Your task to perform on an android device: Clear all items from cart on ebay.com. Add lenovo thinkpad to the cart on ebay.com Image 0: 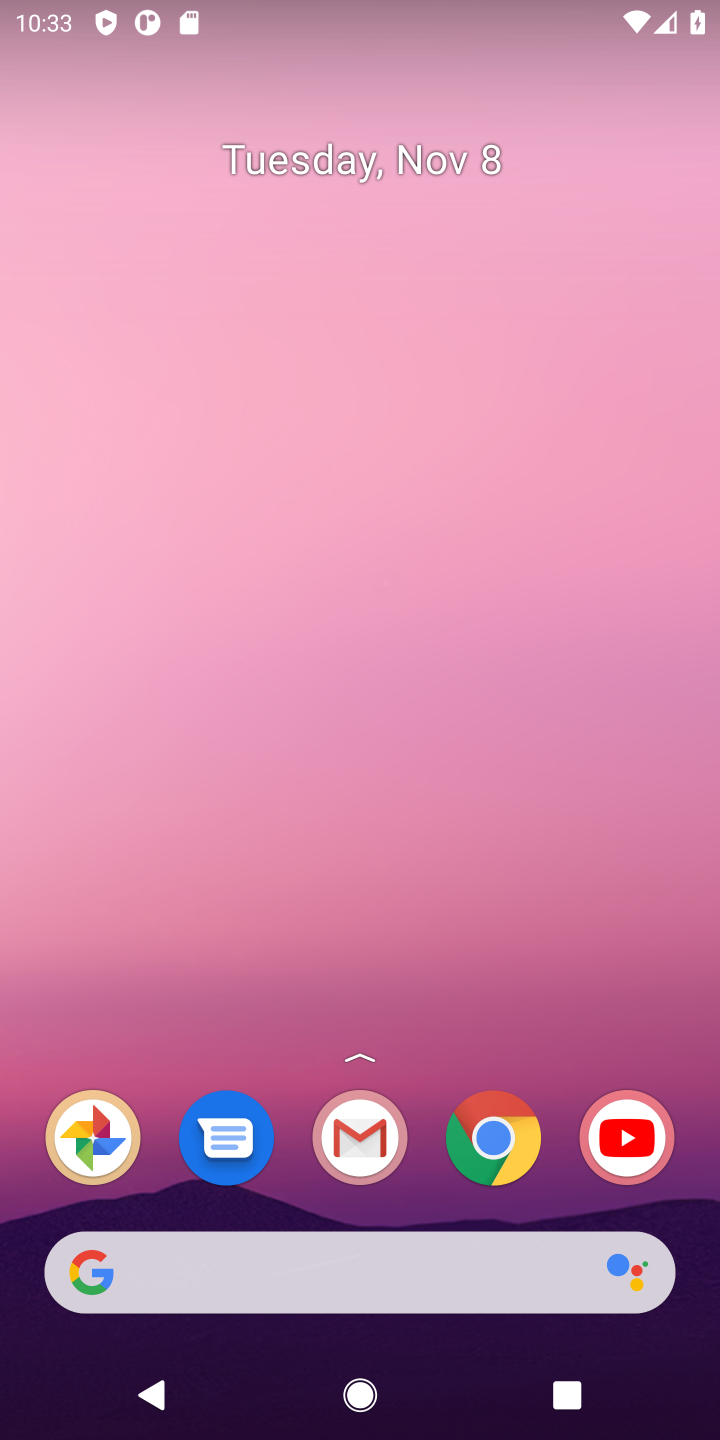
Step 0: press home button
Your task to perform on an android device: Clear all items from cart on ebay.com. Add lenovo thinkpad to the cart on ebay.com Image 1: 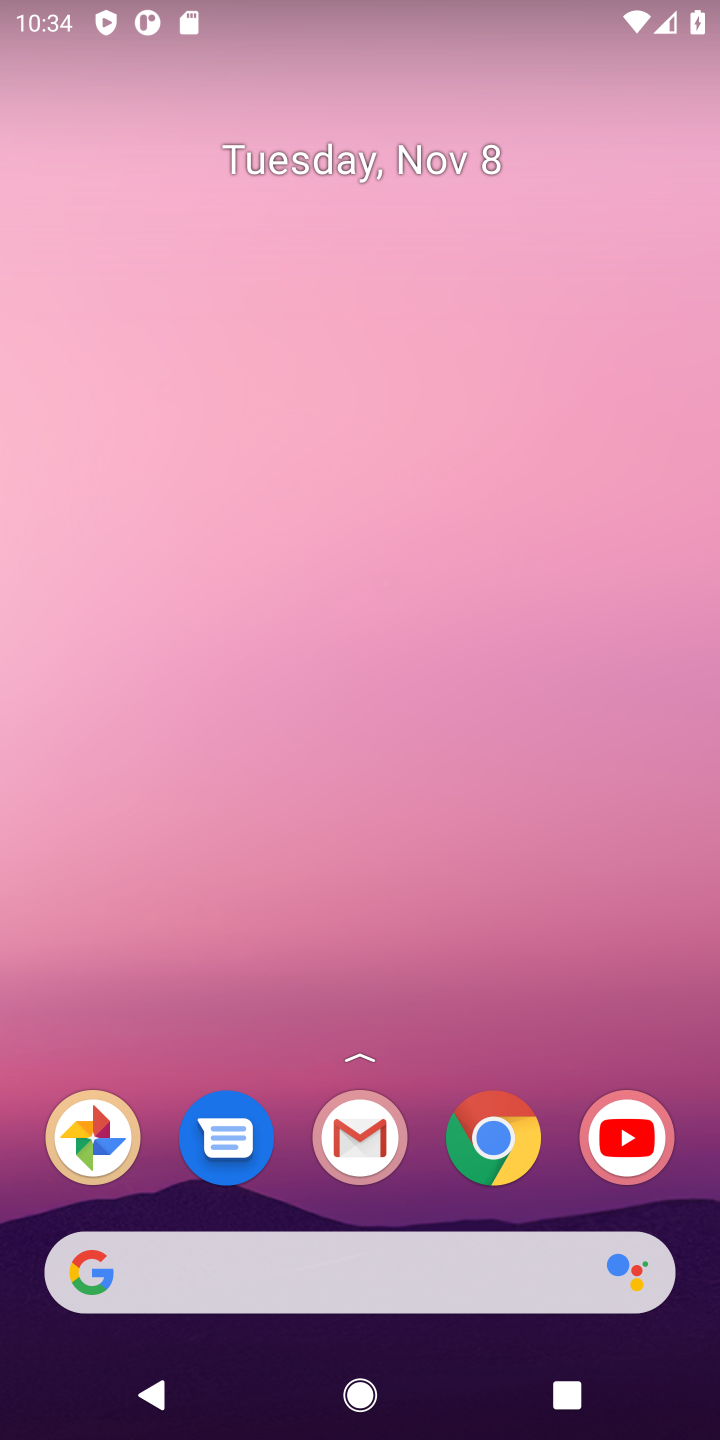
Step 1: click (477, 1148)
Your task to perform on an android device: Clear all items from cart on ebay.com. Add lenovo thinkpad to the cart on ebay.com Image 2: 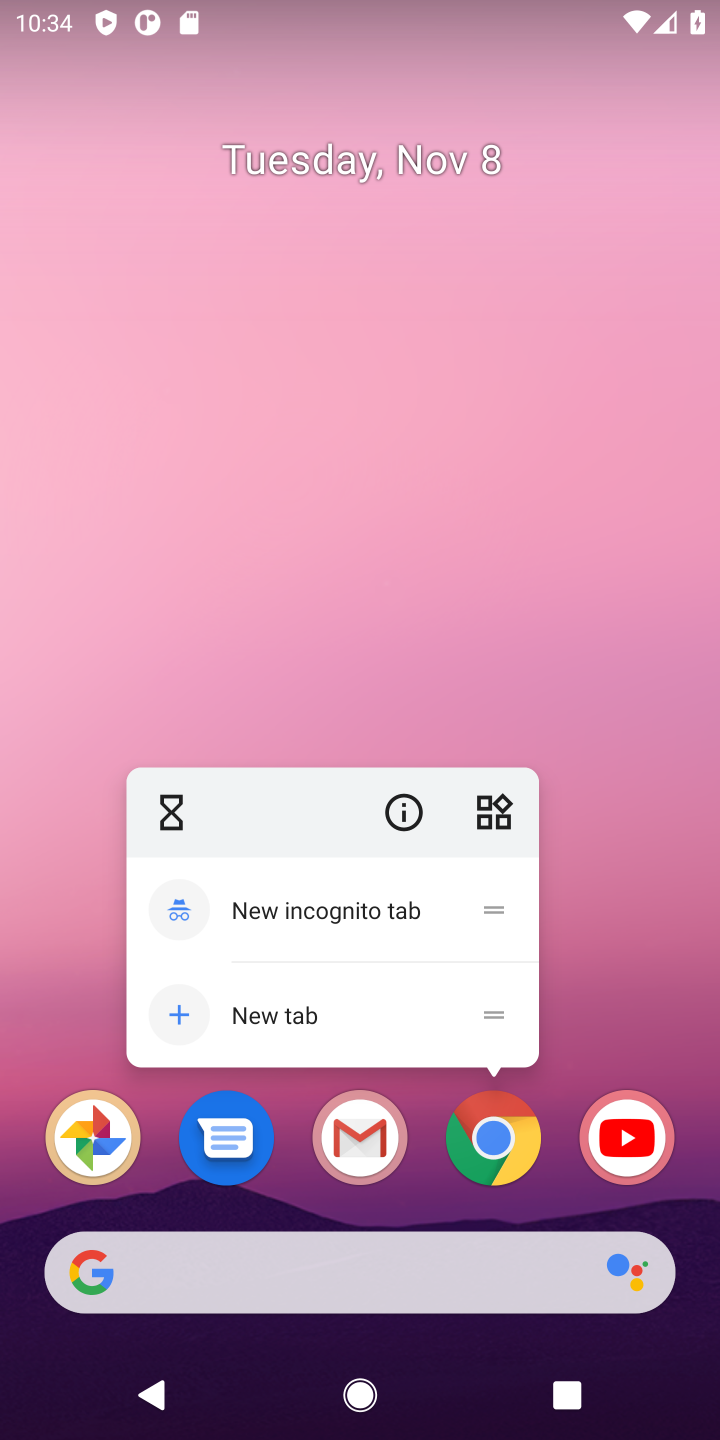
Step 2: click (500, 1146)
Your task to perform on an android device: Clear all items from cart on ebay.com. Add lenovo thinkpad to the cart on ebay.com Image 3: 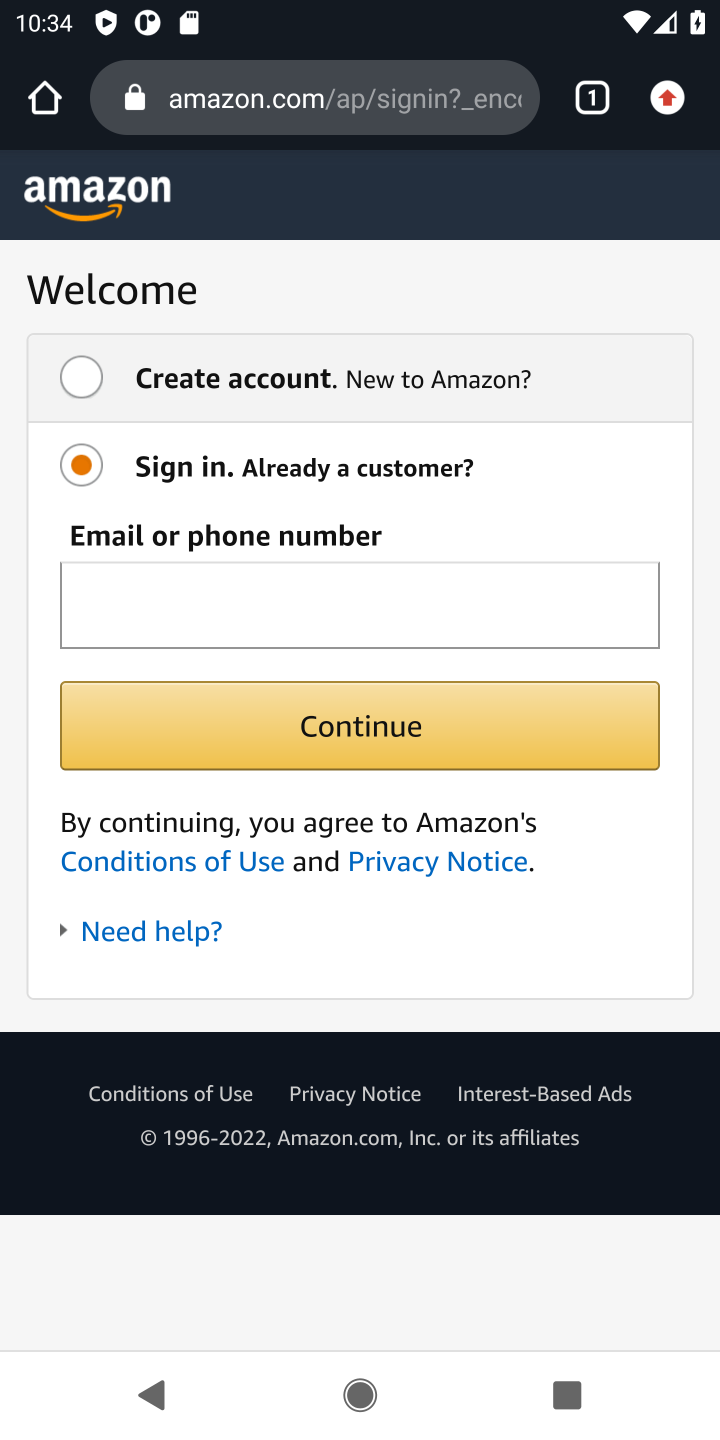
Step 3: click (359, 121)
Your task to perform on an android device: Clear all items from cart on ebay.com. Add lenovo thinkpad to the cart on ebay.com Image 4: 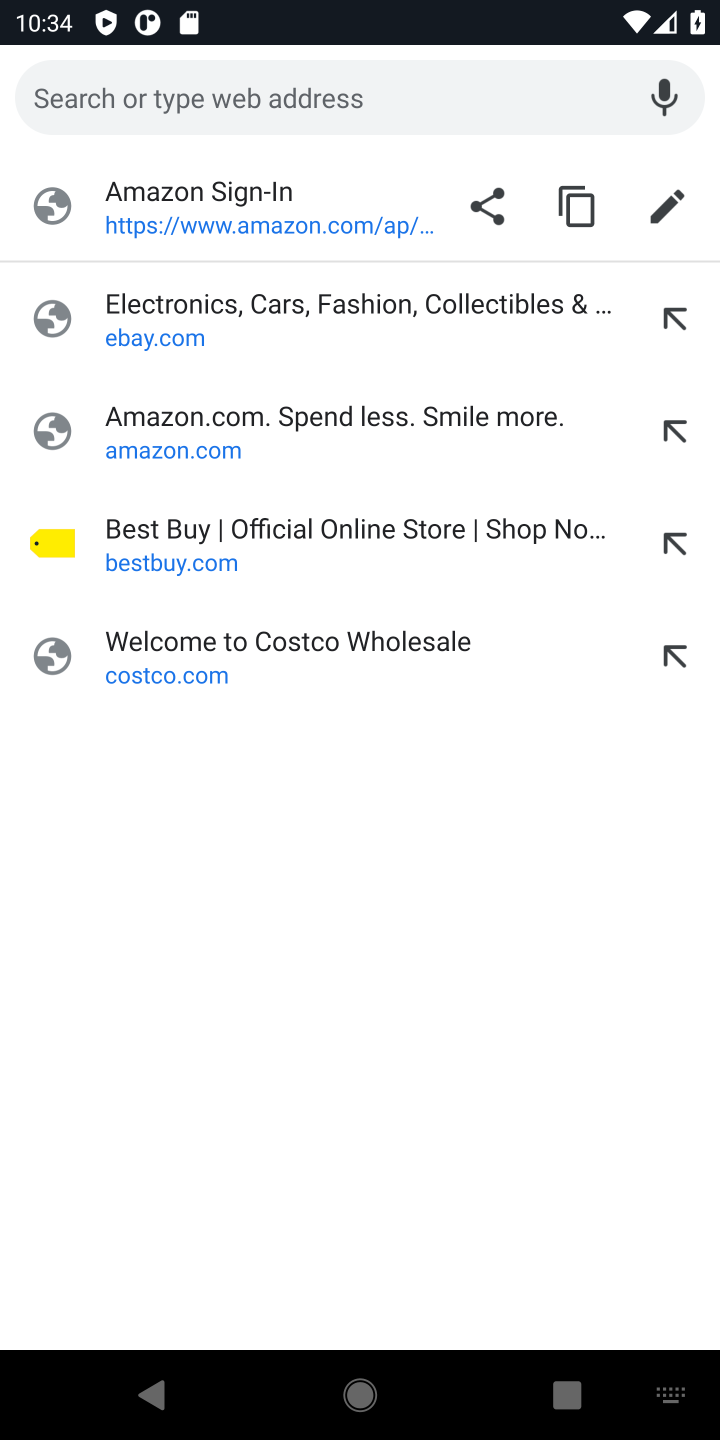
Step 4: click (164, 332)
Your task to perform on an android device: Clear all items from cart on ebay.com. Add lenovo thinkpad to the cart on ebay.com Image 5: 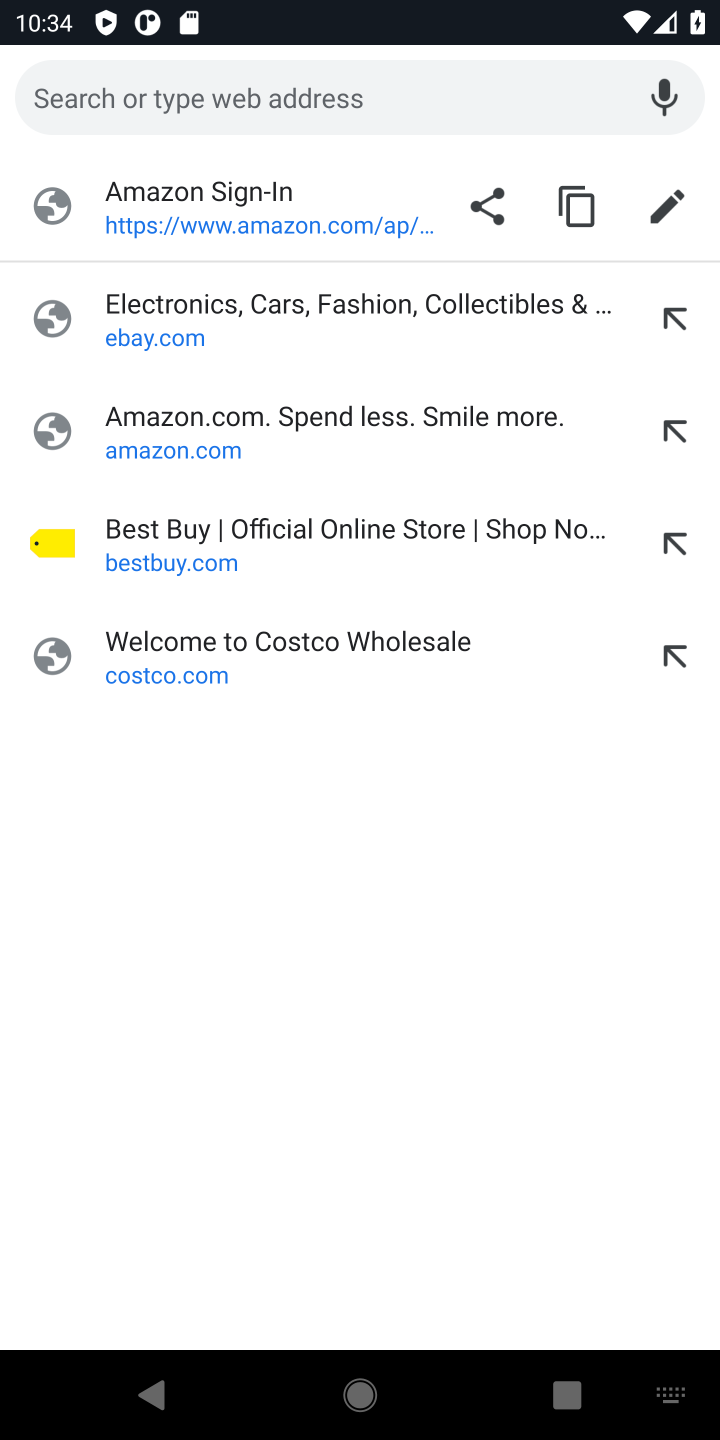
Step 5: click (136, 334)
Your task to perform on an android device: Clear all items from cart on ebay.com. Add lenovo thinkpad to the cart on ebay.com Image 6: 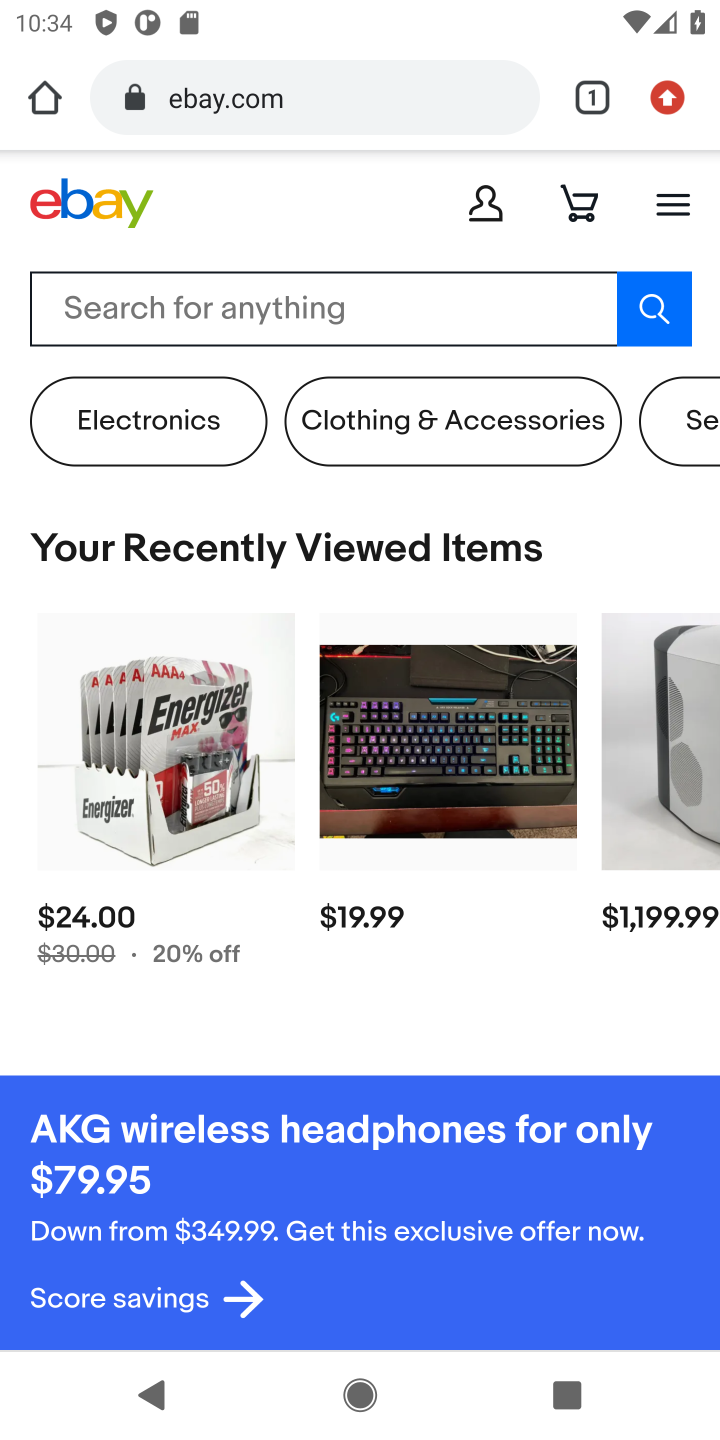
Step 6: click (167, 307)
Your task to perform on an android device: Clear all items from cart on ebay.com. Add lenovo thinkpad to the cart on ebay.com Image 7: 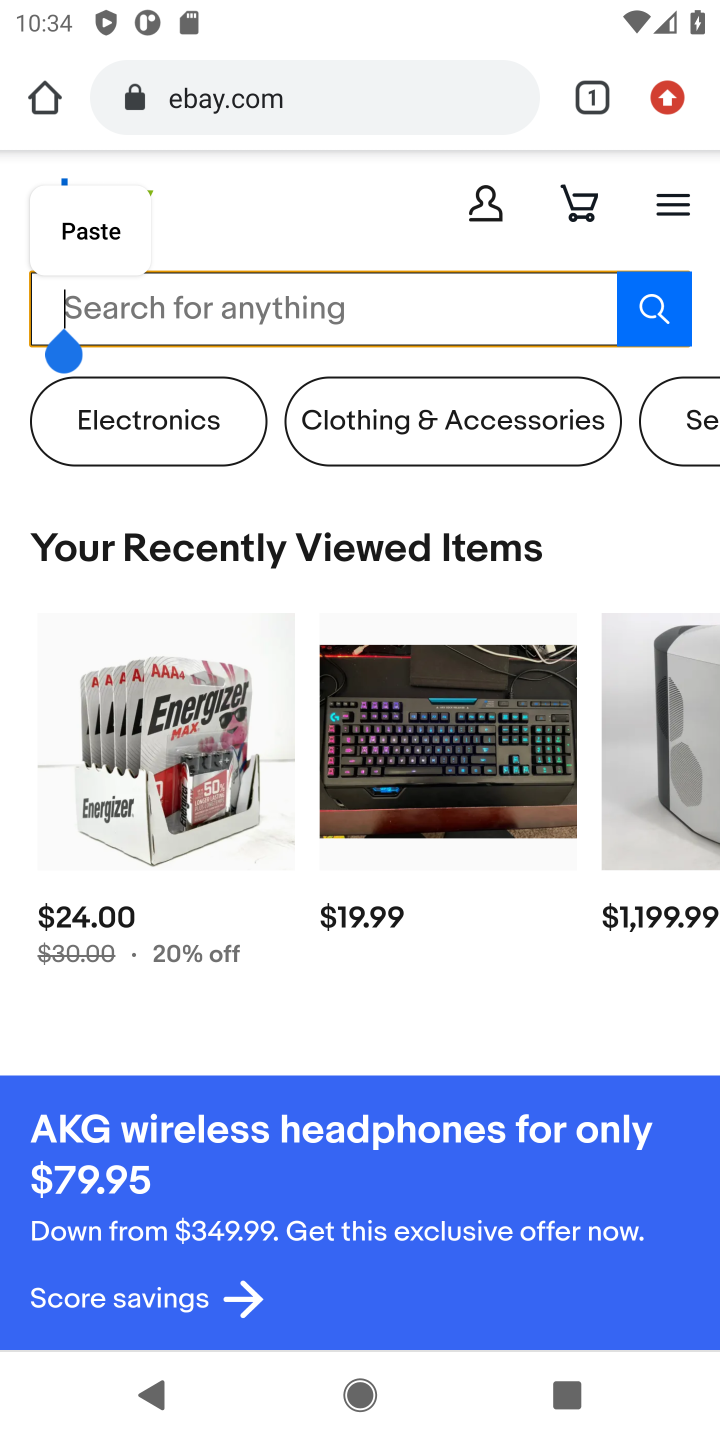
Step 7: type "lenovo thinkpad "
Your task to perform on an android device: Clear all items from cart on ebay.com. Add lenovo thinkpad to the cart on ebay.com Image 8: 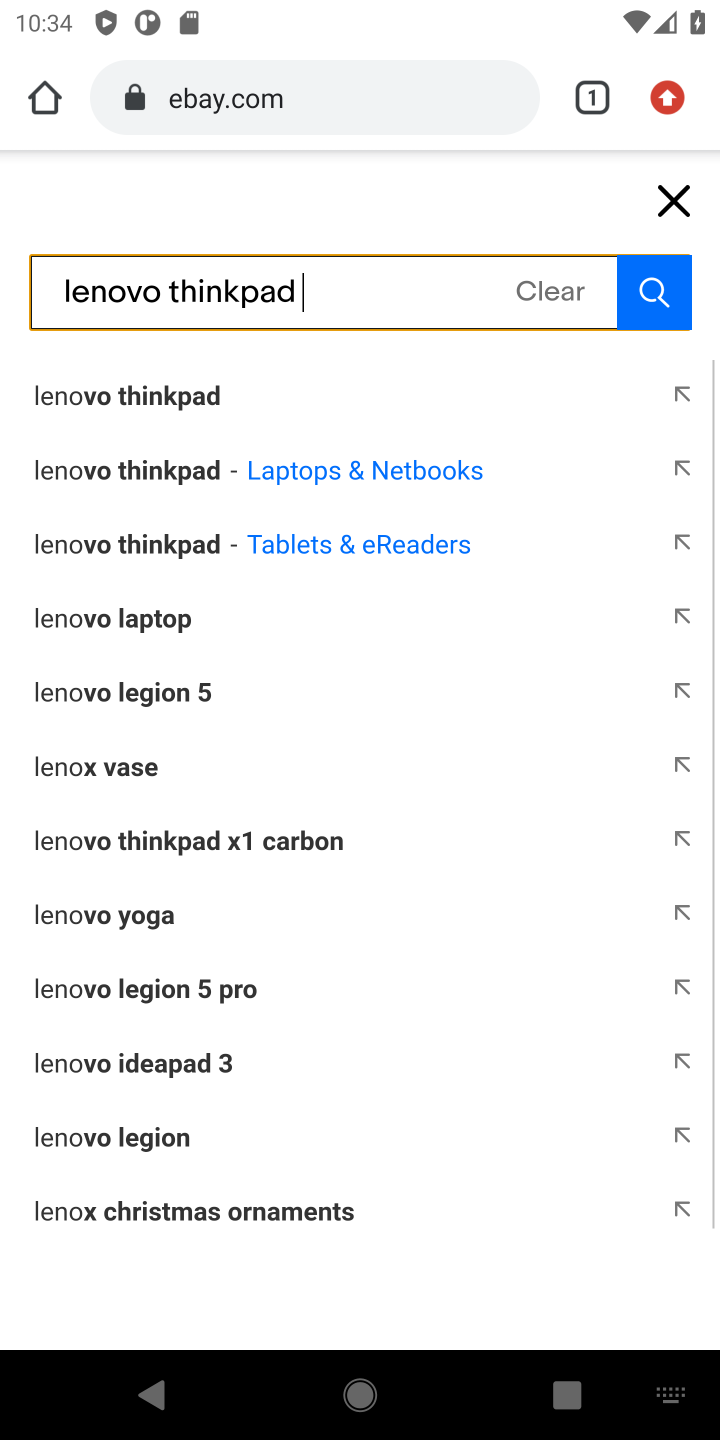
Step 8: press enter
Your task to perform on an android device: Clear all items from cart on ebay.com. Add lenovo thinkpad to the cart on ebay.com Image 9: 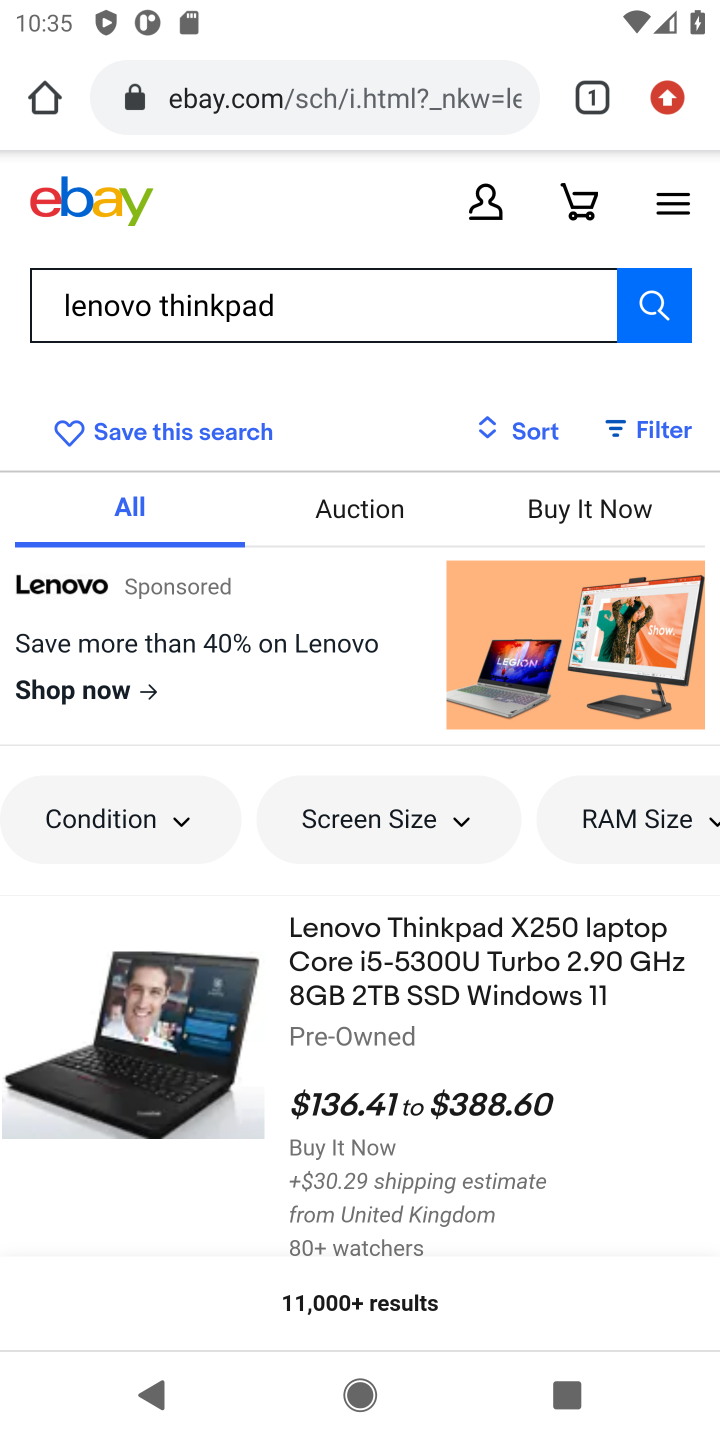
Step 9: click (508, 983)
Your task to perform on an android device: Clear all items from cart on ebay.com. Add lenovo thinkpad to the cart on ebay.com Image 10: 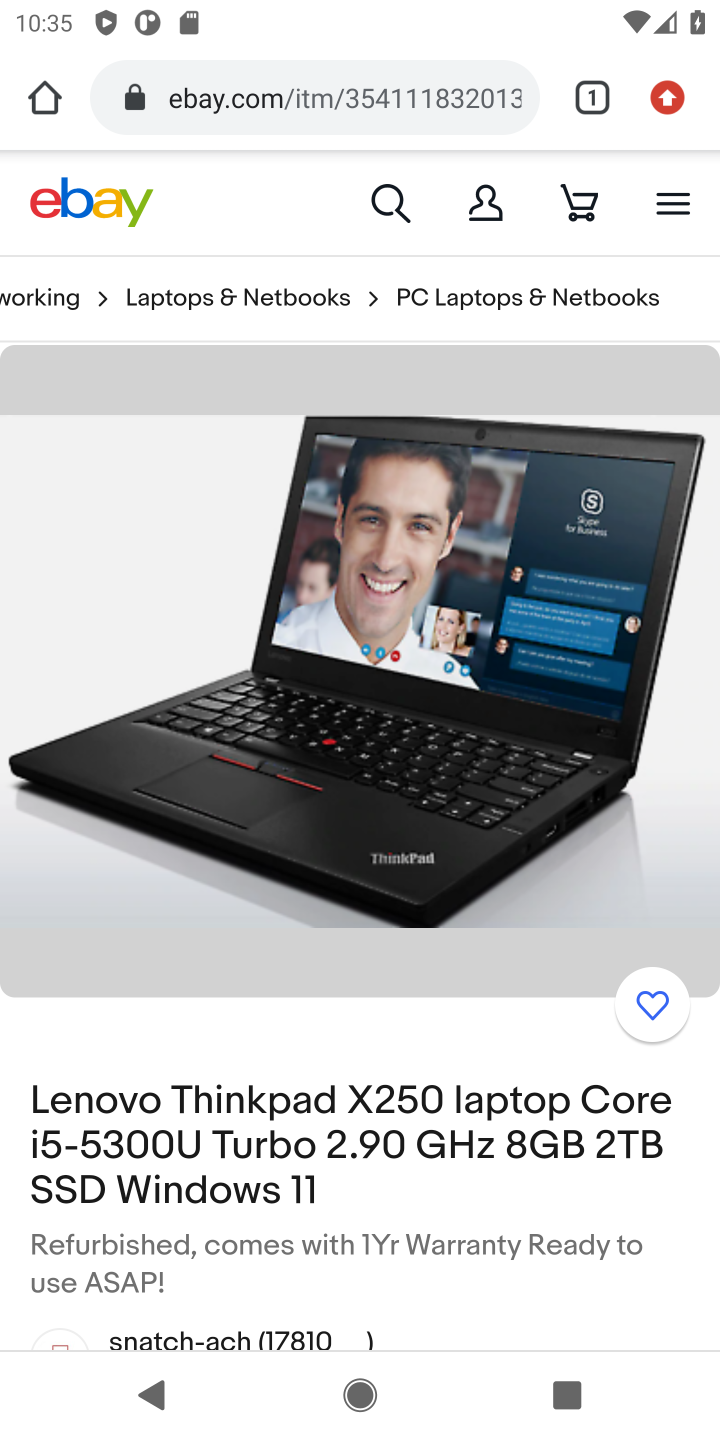
Step 10: drag from (396, 1275) to (693, 458)
Your task to perform on an android device: Clear all items from cart on ebay.com. Add lenovo thinkpad to the cart on ebay.com Image 11: 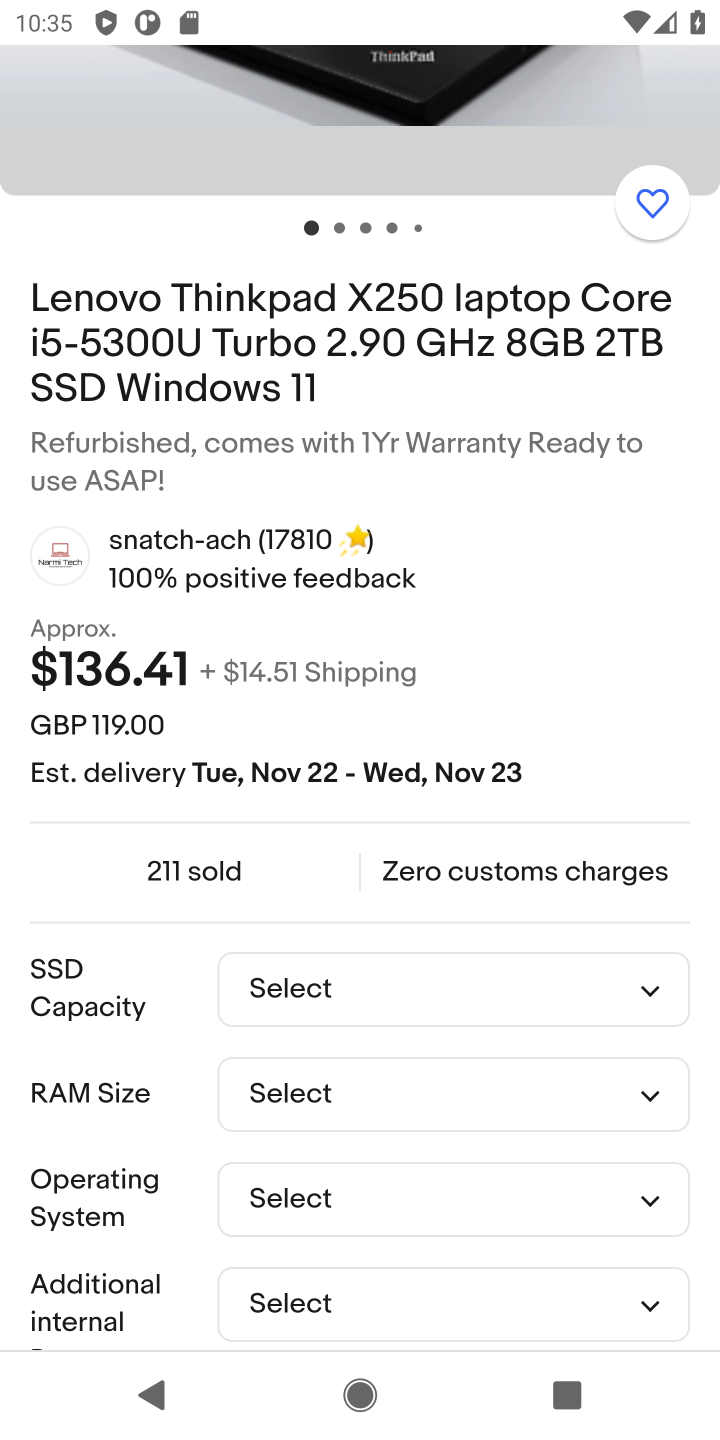
Step 11: drag from (265, 1054) to (601, 76)
Your task to perform on an android device: Clear all items from cart on ebay.com. Add lenovo thinkpad to the cart on ebay.com Image 12: 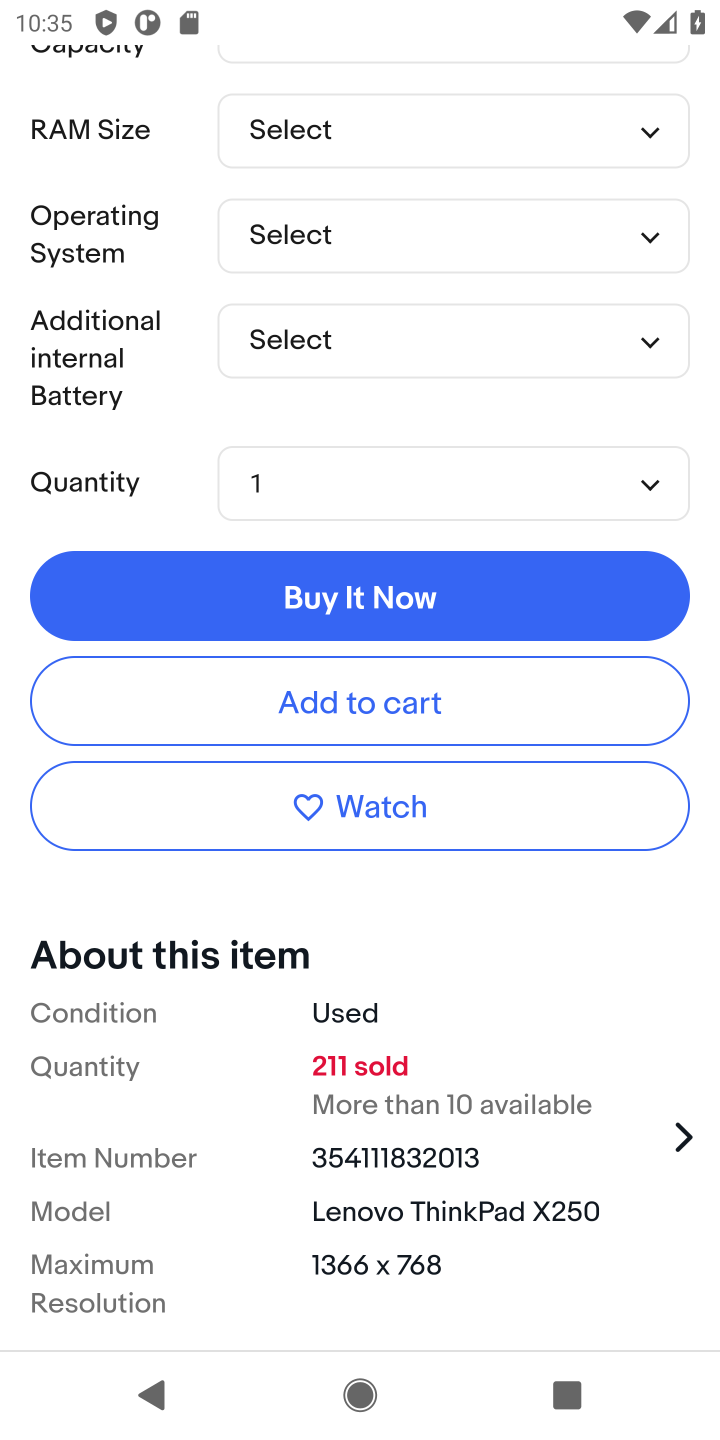
Step 12: click (392, 695)
Your task to perform on an android device: Clear all items from cart on ebay.com. Add lenovo thinkpad to the cart on ebay.com Image 13: 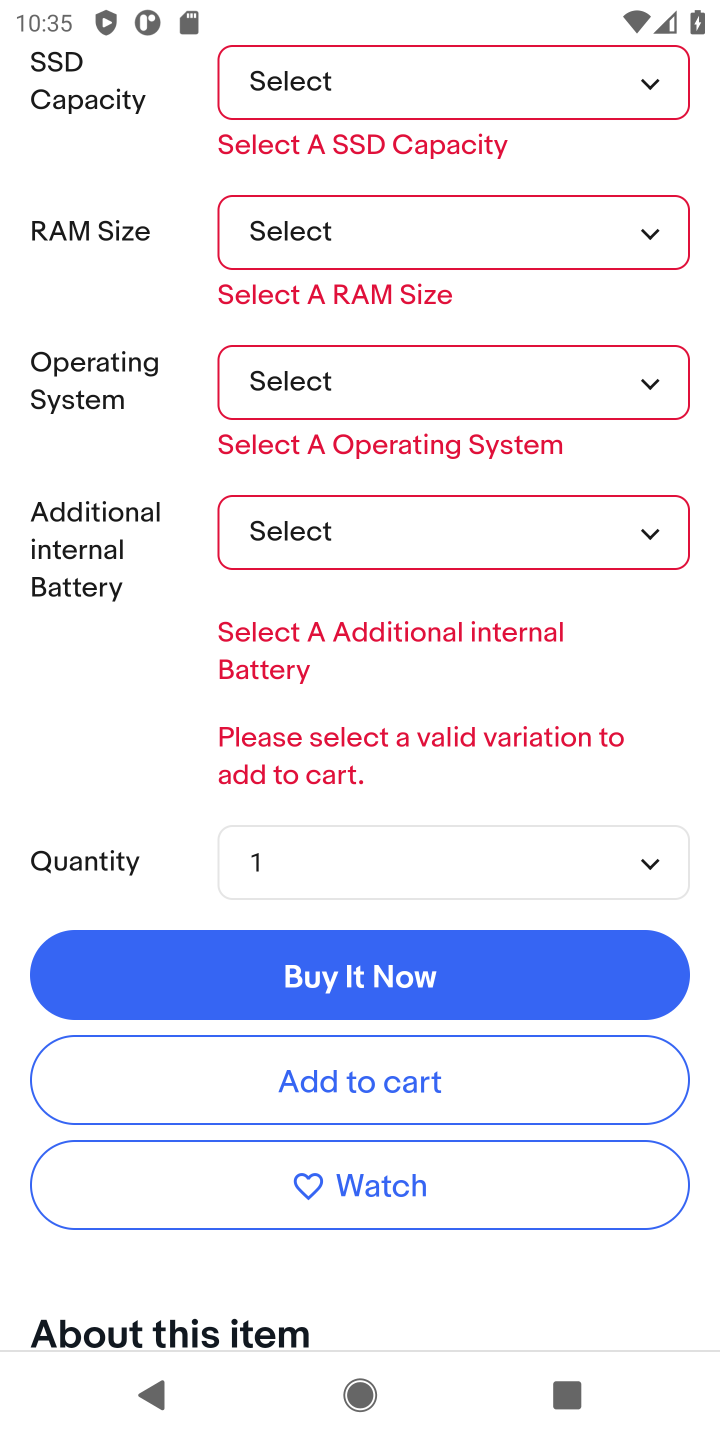
Step 13: click (638, 70)
Your task to perform on an android device: Clear all items from cart on ebay.com. Add lenovo thinkpad to the cart on ebay.com Image 14: 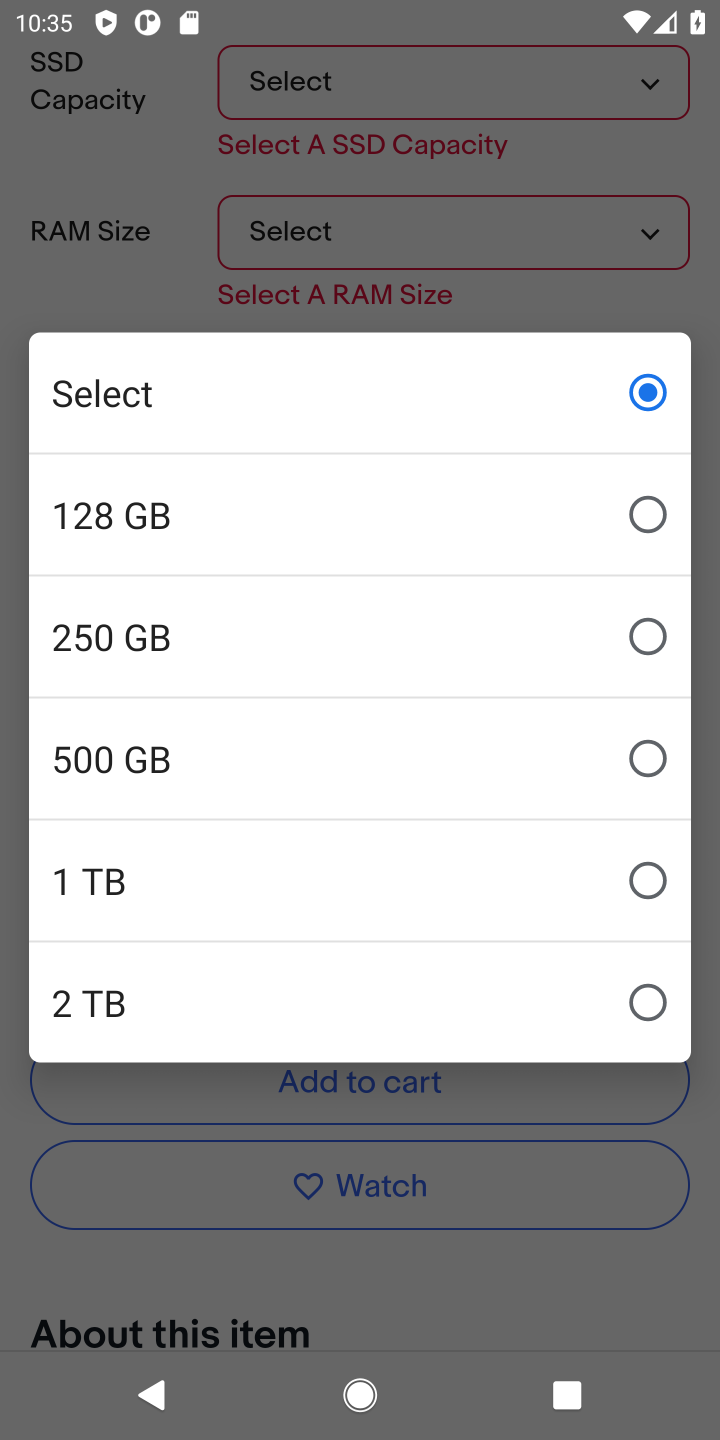
Step 14: click (654, 497)
Your task to perform on an android device: Clear all items from cart on ebay.com. Add lenovo thinkpad to the cart on ebay.com Image 15: 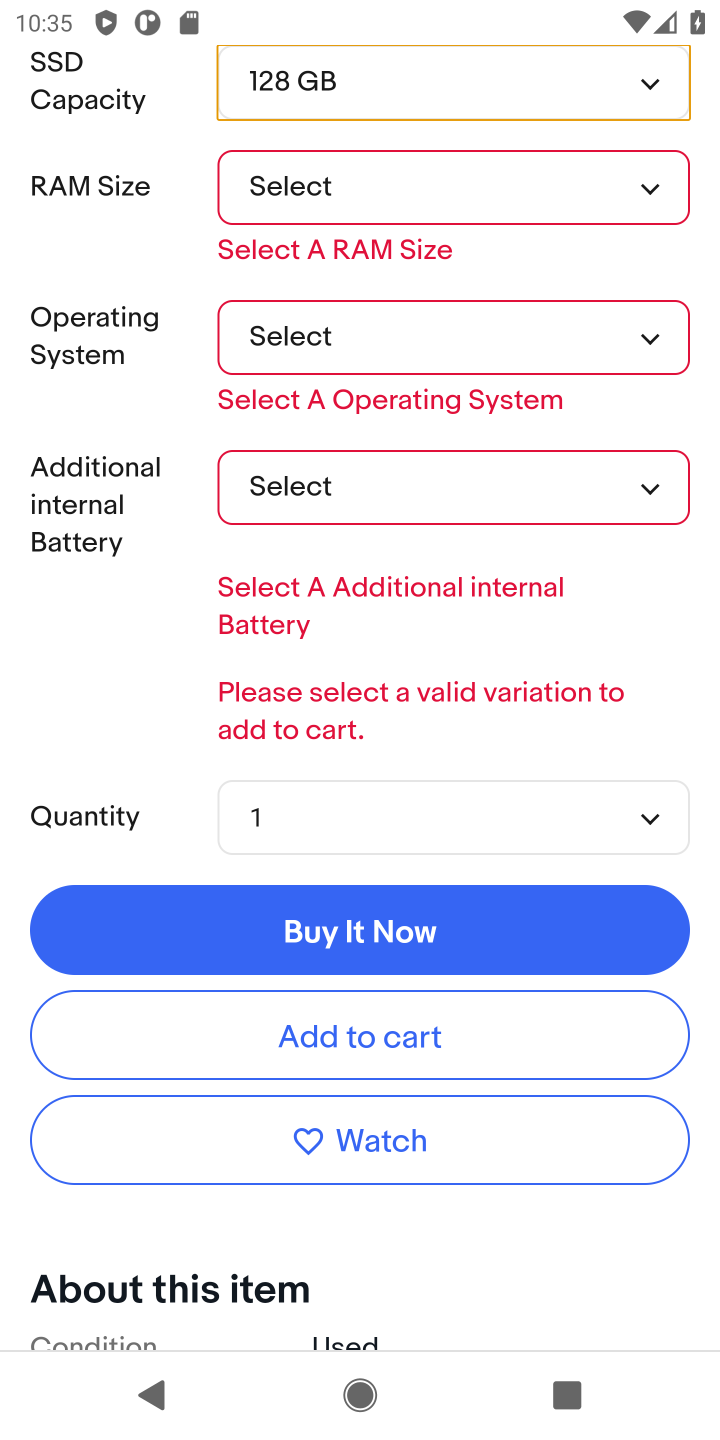
Step 15: click (656, 178)
Your task to perform on an android device: Clear all items from cart on ebay.com. Add lenovo thinkpad to the cart on ebay.com Image 16: 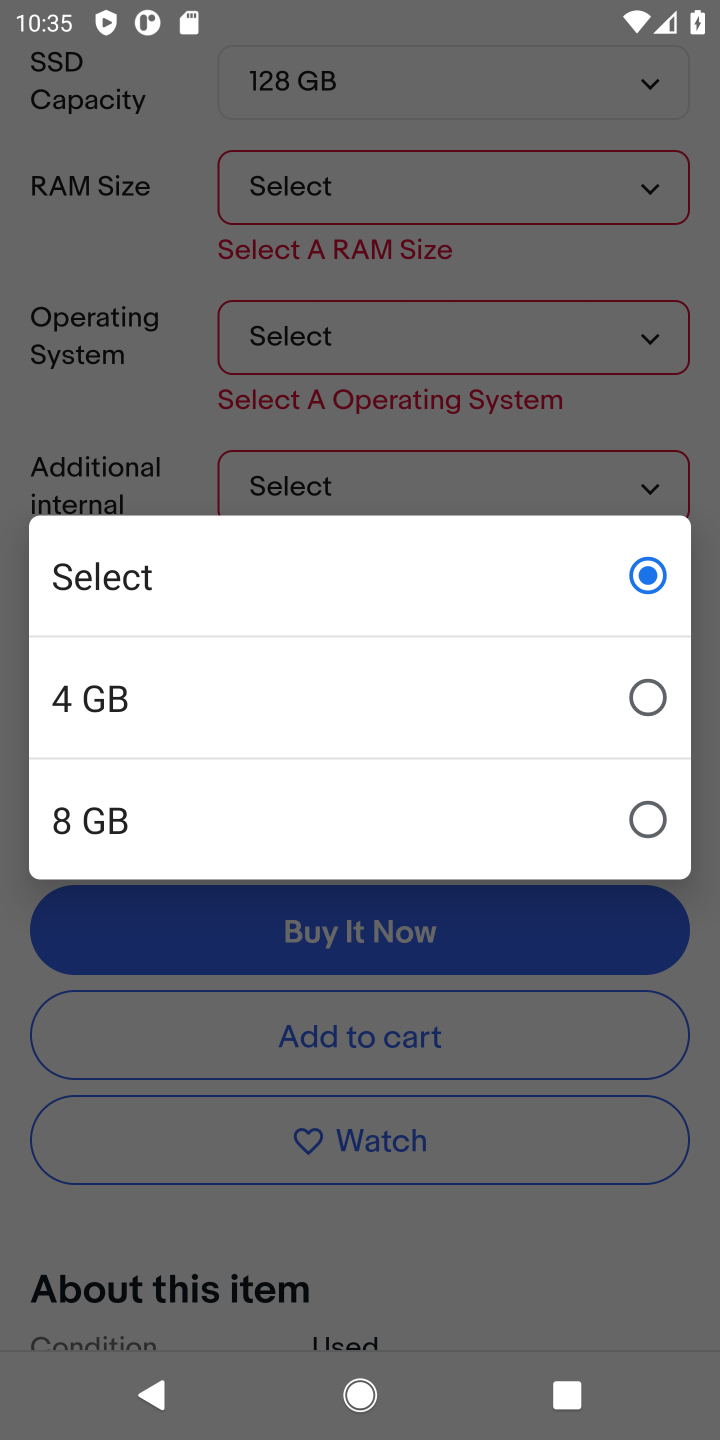
Step 16: click (638, 686)
Your task to perform on an android device: Clear all items from cart on ebay.com. Add lenovo thinkpad to the cart on ebay.com Image 17: 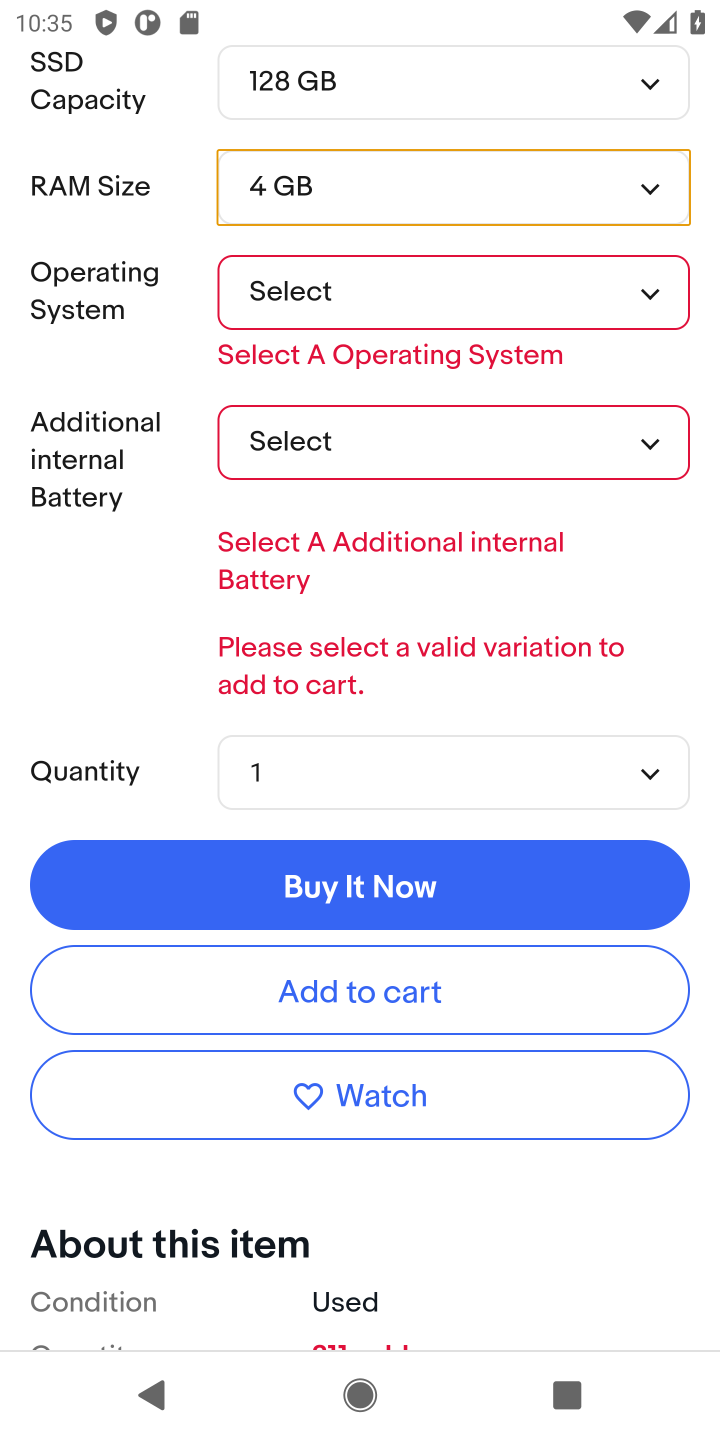
Step 17: click (659, 286)
Your task to perform on an android device: Clear all items from cart on ebay.com. Add lenovo thinkpad to the cart on ebay.com Image 18: 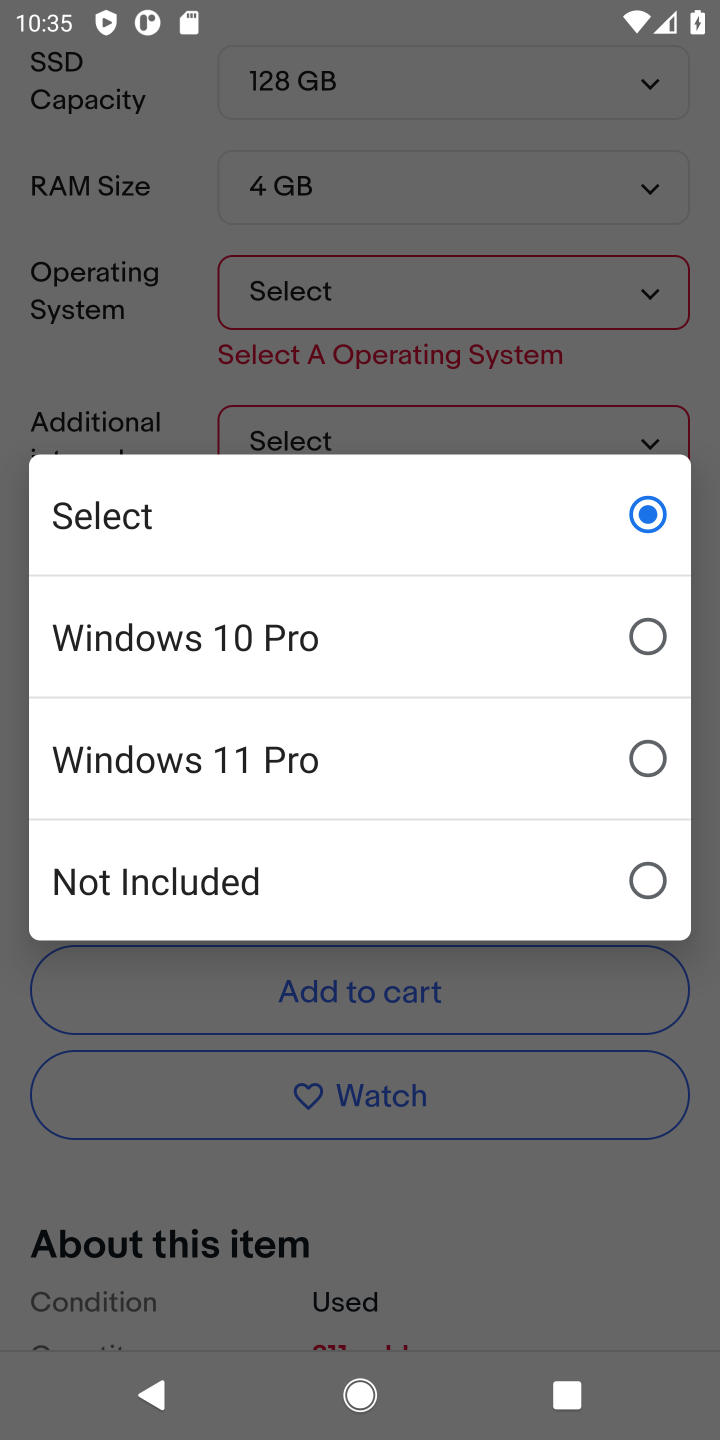
Step 18: click (643, 639)
Your task to perform on an android device: Clear all items from cart on ebay.com. Add lenovo thinkpad to the cart on ebay.com Image 19: 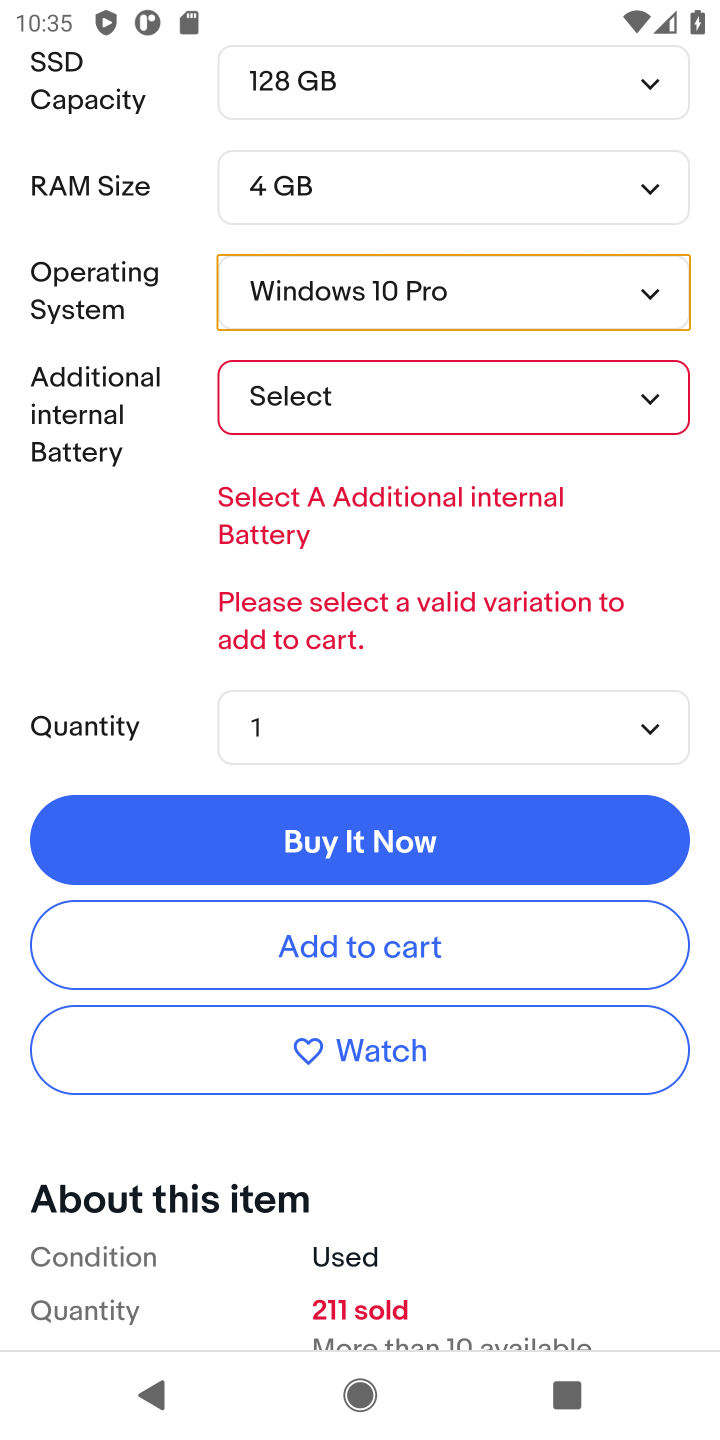
Step 19: click (651, 392)
Your task to perform on an android device: Clear all items from cart on ebay.com. Add lenovo thinkpad to the cart on ebay.com Image 20: 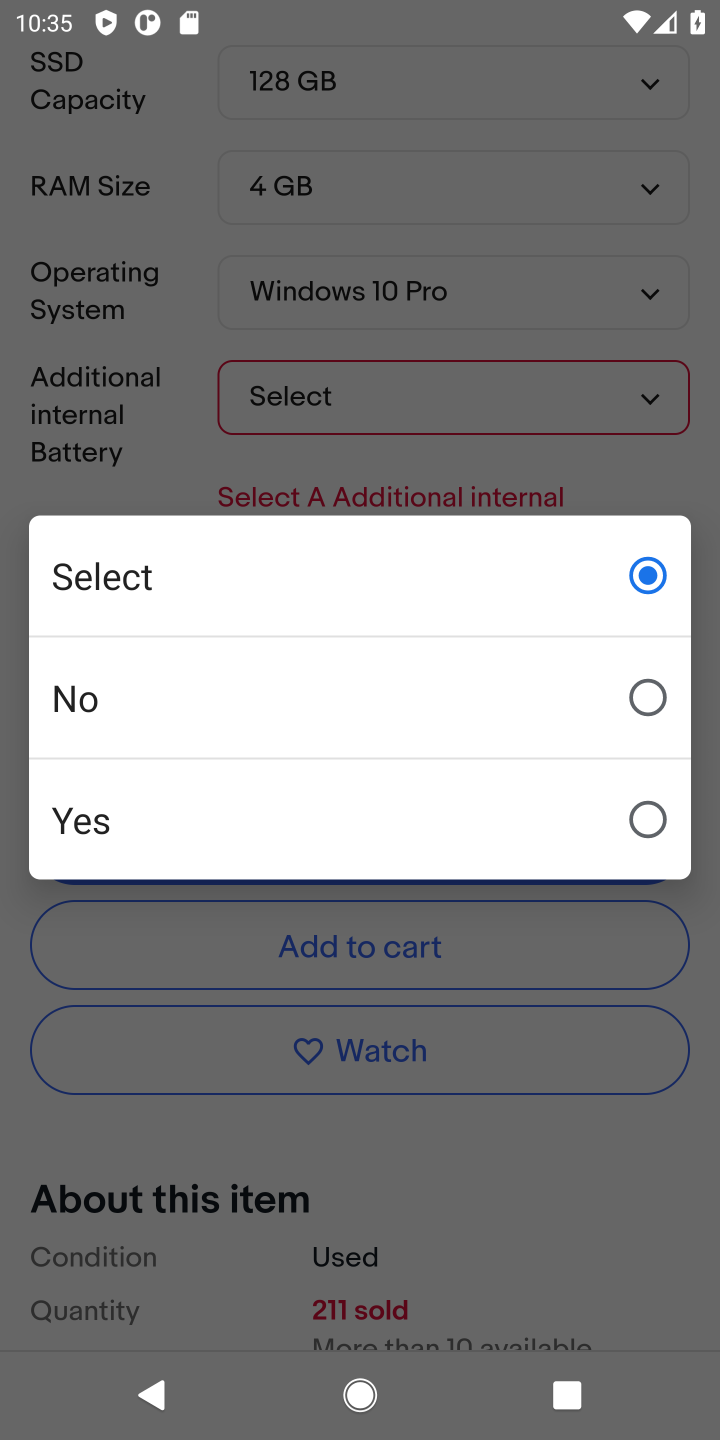
Step 20: click (648, 698)
Your task to perform on an android device: Clear all items from cart on ebay.com. Add lenovo thinkpad to the cart on ebay.com Image 21: 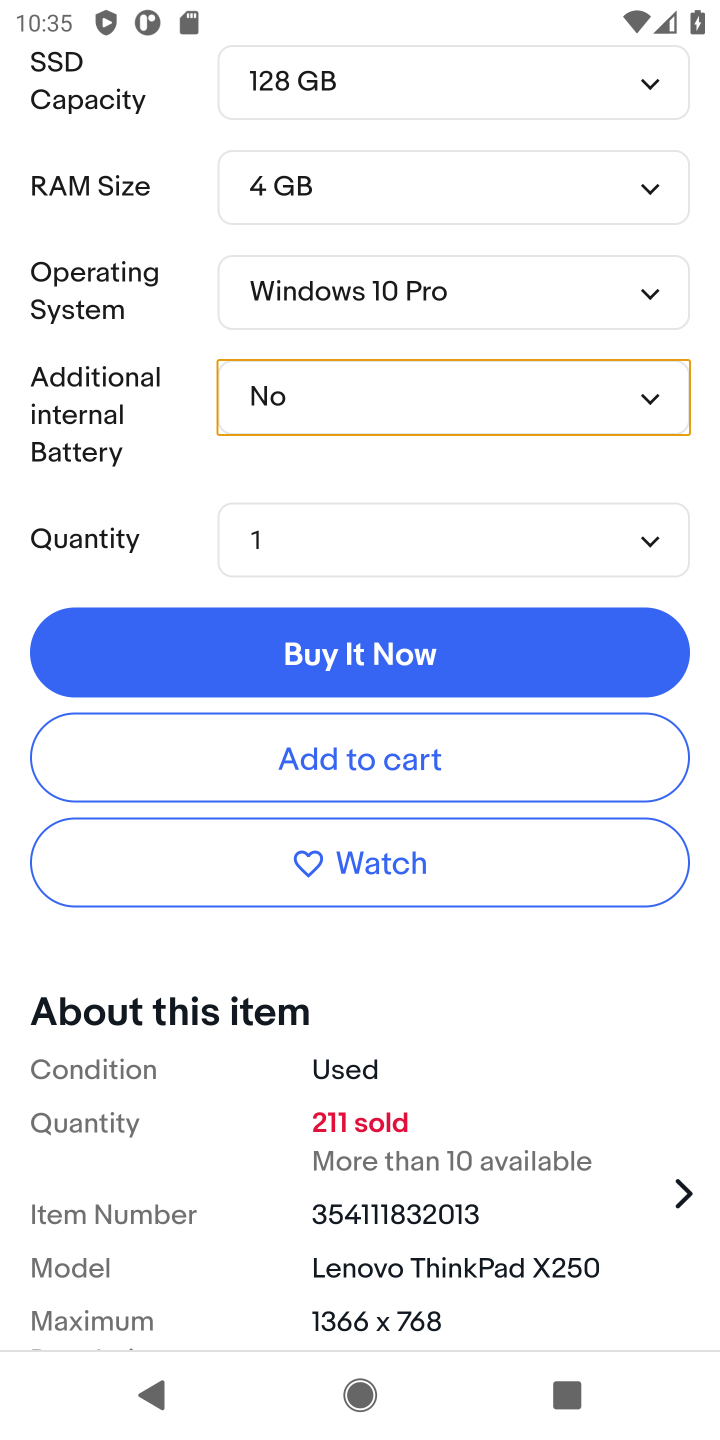
Step 21: click (403, 759)
Your task to perform on an android device: Clear all items from cart on ebay.com. Add lenovo thinkpad to the cart on ebay.com Image 22: 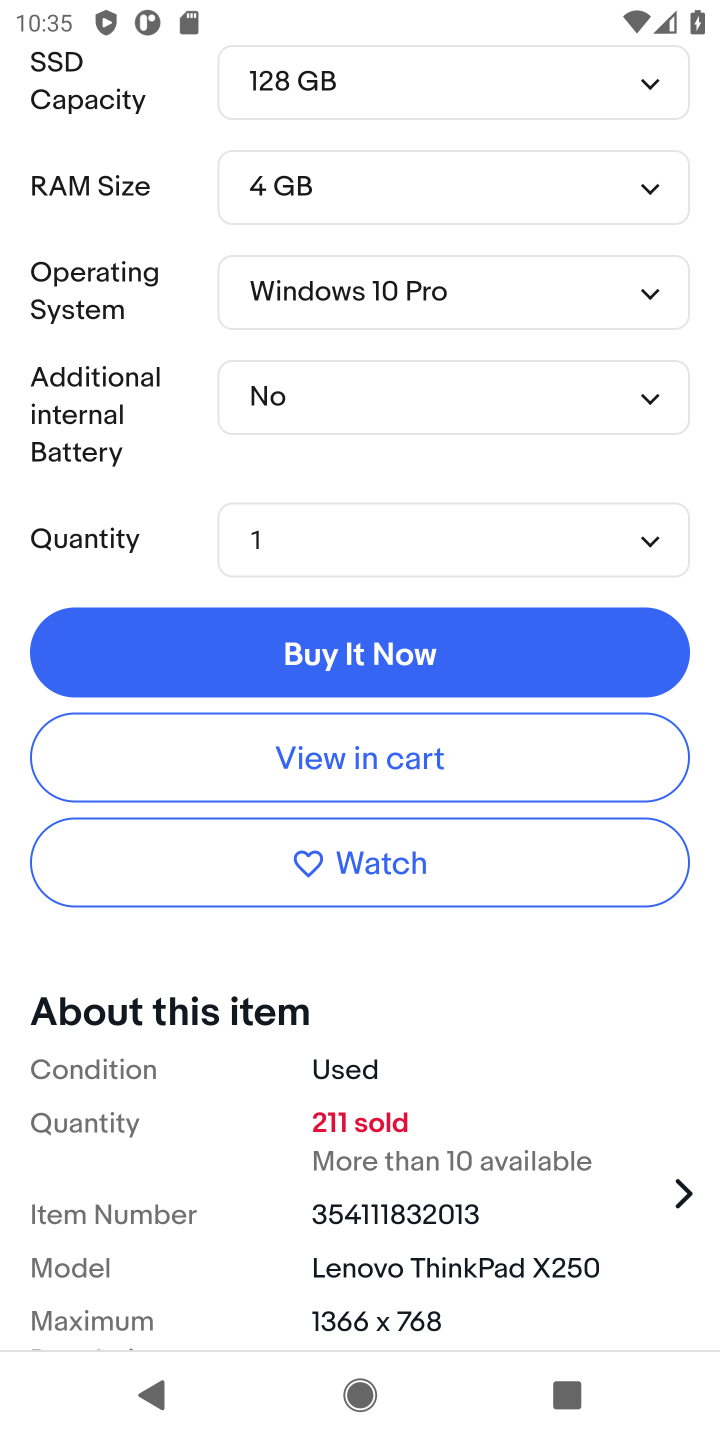
Step 22: click (403, 763)
Your task to perform on an android device: Clear all items from cart on ebay.com. Add lenovo thinkpad to the cart on ebay.com Image 23: 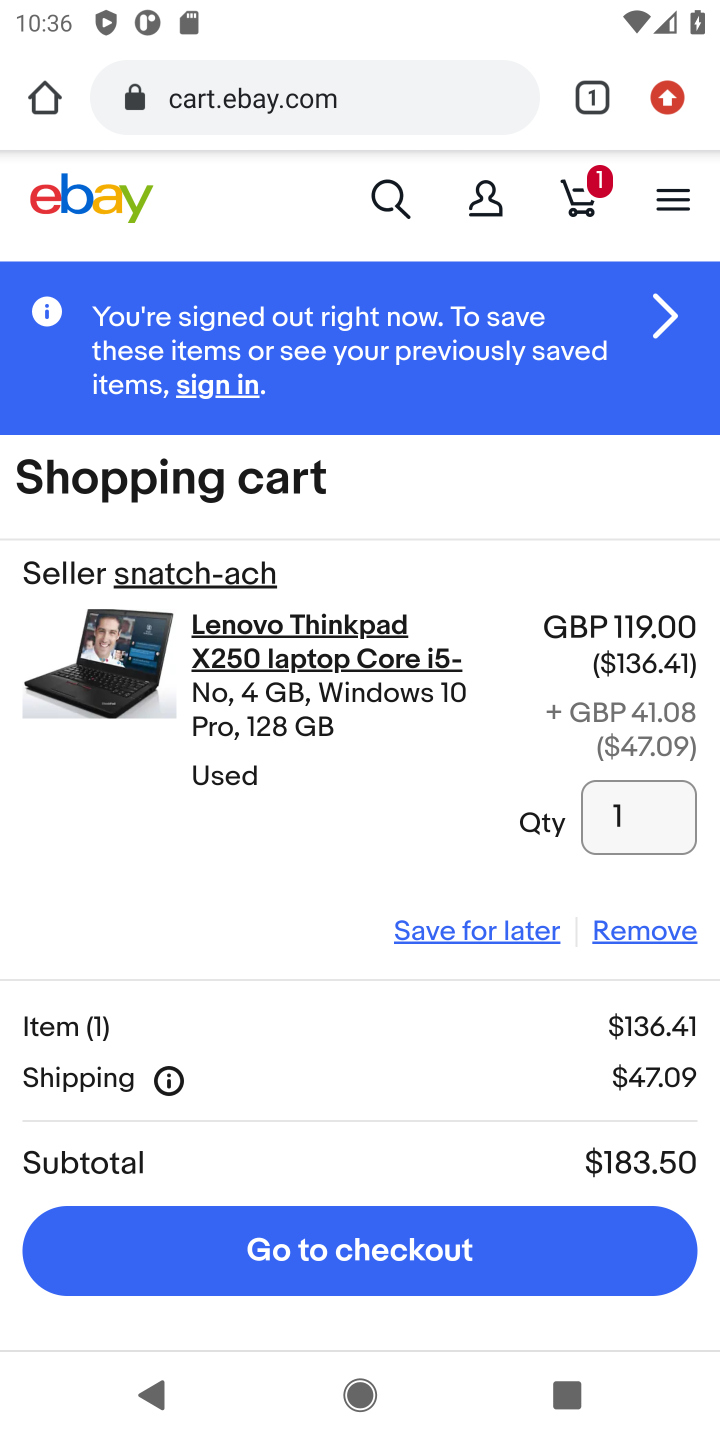
Step 23: task complete